Your task to perform on an android device: Open my contact list Image 0: 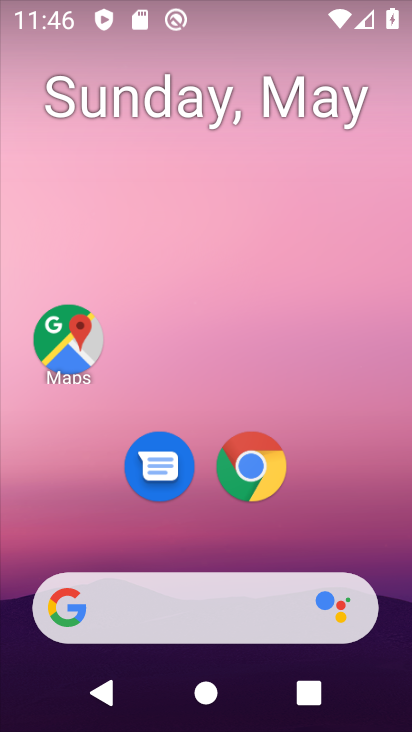
Step 0: press home button
Your task to perform on an android device: Open my contact list Image 1: 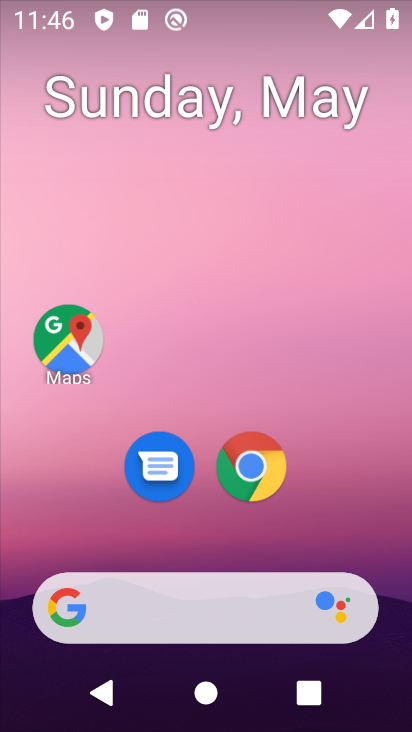
Step 1: drag from (402, 696) to (278, 347)
Your task to perform on an android device: Open my contact list Image 2: 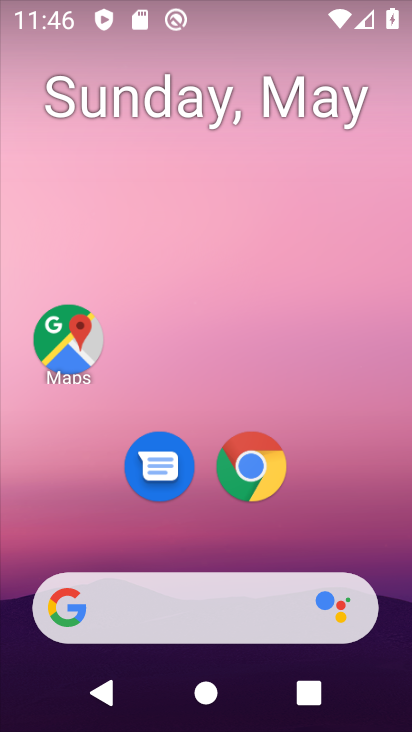
Step 2: drag from (380, 707) to (248, 186)
Your task to perform on an android device: Open my contact list Image 3: 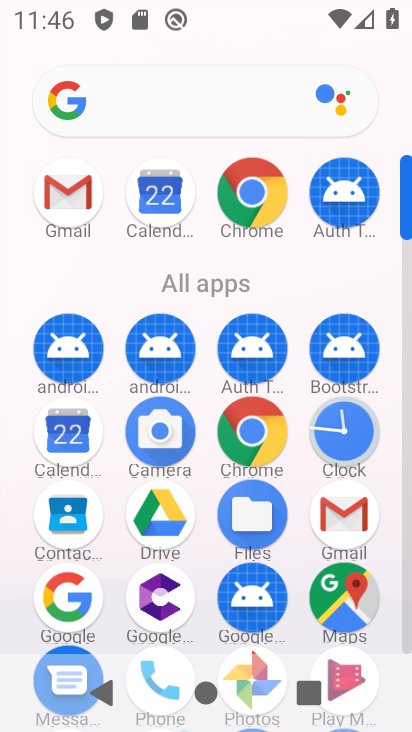
Step 3: click (408, 625)
Your task to perform on an android device: Open my contact list Image 4: 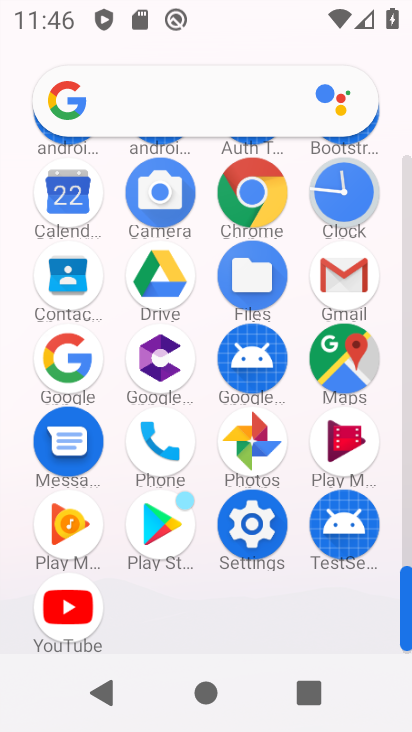
Step 4: click (50, 278)
Your task to perform on an android device: Open my contact list Image 5: 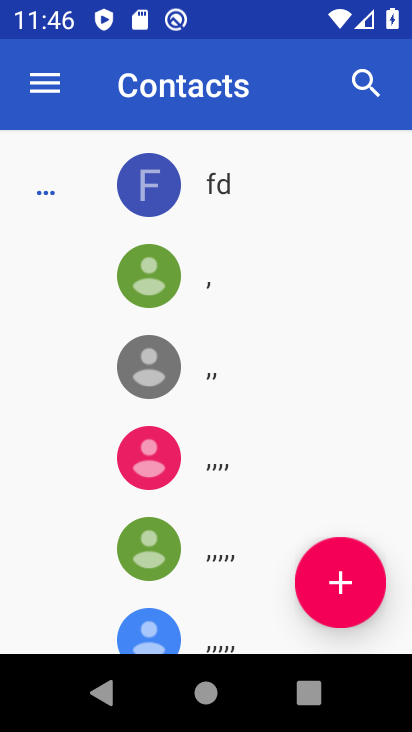
Step 5: task complete